Your task to perform on an android device: turn on improve location accuracy Image 0: 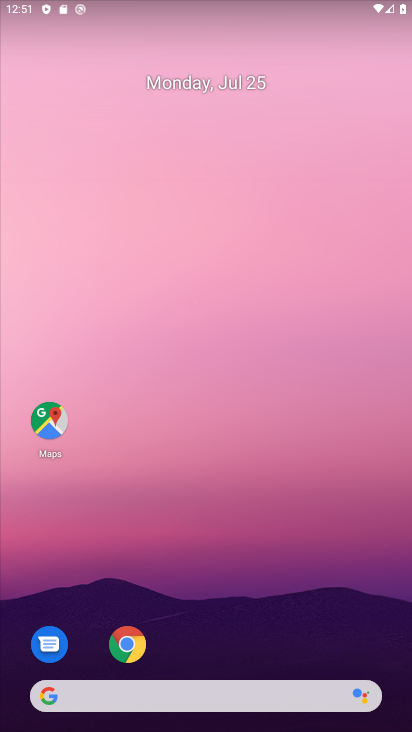
Step 0: drag from (262, 656) to (194, 75)
Your task to perform on an android device: turn on improve location accuracy Image 1: 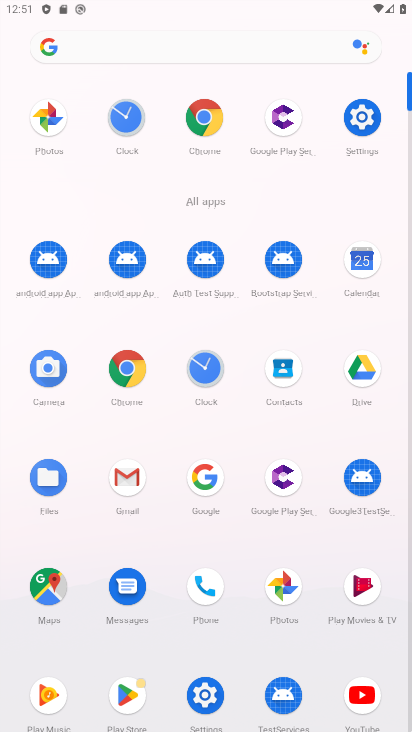
Step 1: click (361, 114)
Your task to perform on an android device: turn on improve location accuracy Image 2: 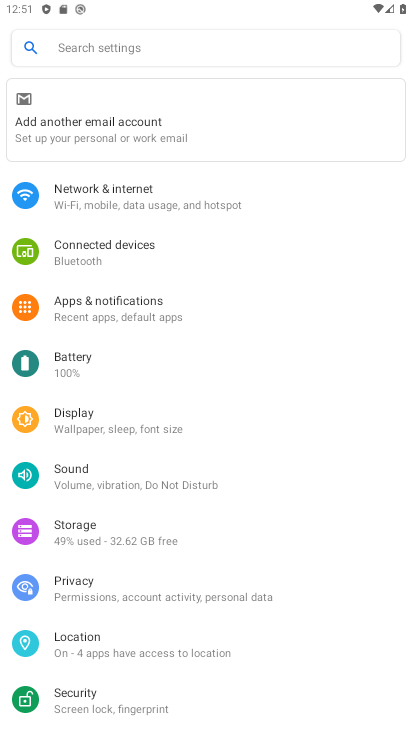
Step 2: click (137, 634)
Your task to perform on an android device: turn on improve location accuracy Image 3: 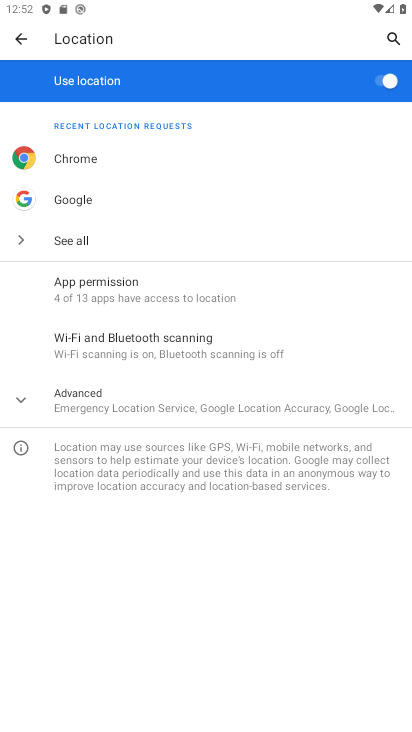
Step 3: click (111, 403)
Your task to perform on an android device: turn on improve location accuracy Image 4: 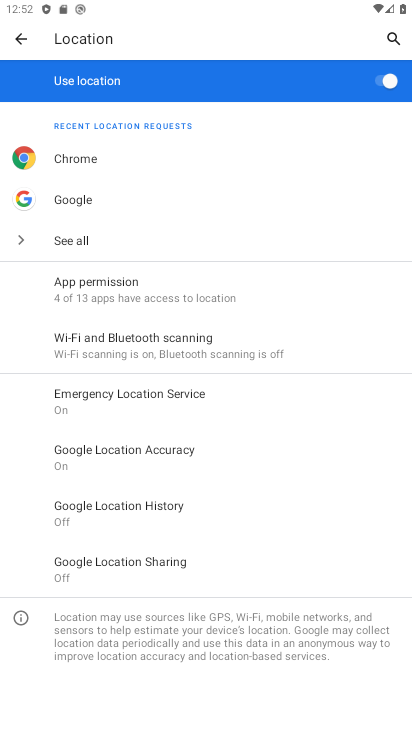
Step 4: click (124, 454)
Your task to perform on an android device: turn on improve location accuracy Image 5: 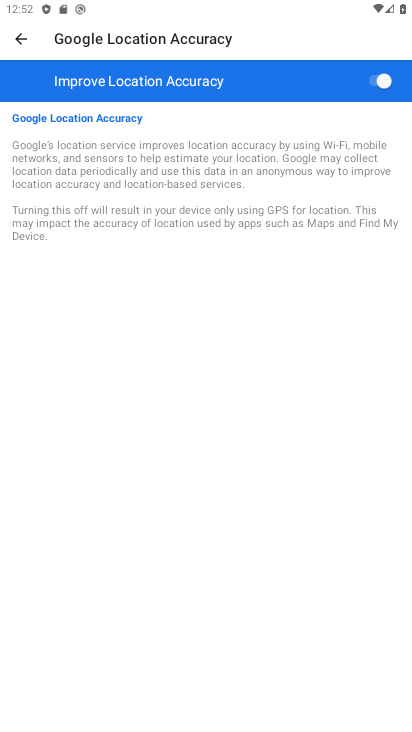
Step 5: task complete